Your task to perform on an android device: change keyboard looks Image 0: 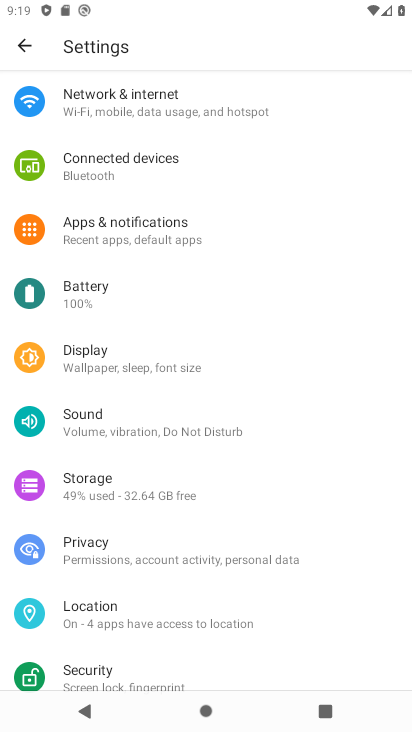
Step 0: drag from (125, 640) to (120, 48)
Your task to perform on an android device: change keyboard looks Image 1: 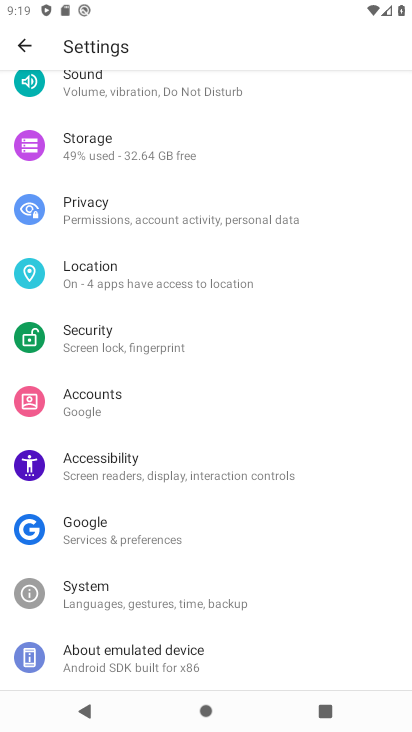
Step 1: click (91, 593)
Your task to perform on an android device: change keyboard looks Image 2: 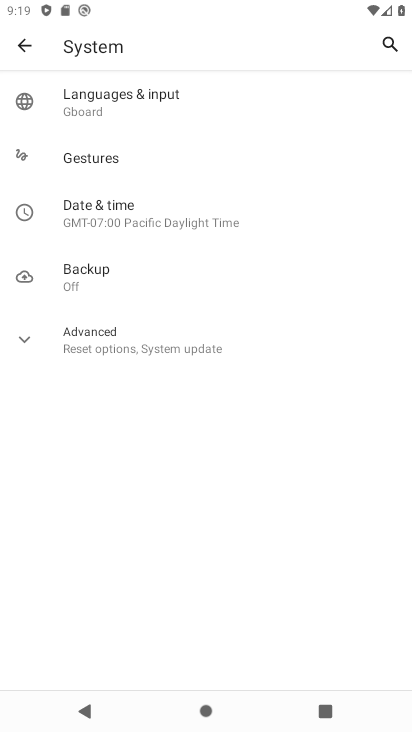
Step 2: click (131, 106)
Your task to perform on an android device: change keyboard looks Image 3: 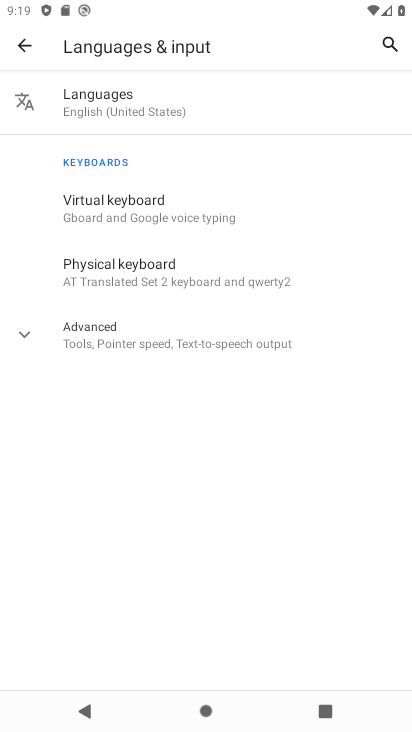
Step 3: click (116, 216)
Your task to perform on an android device: change keyboard looks Image 4: 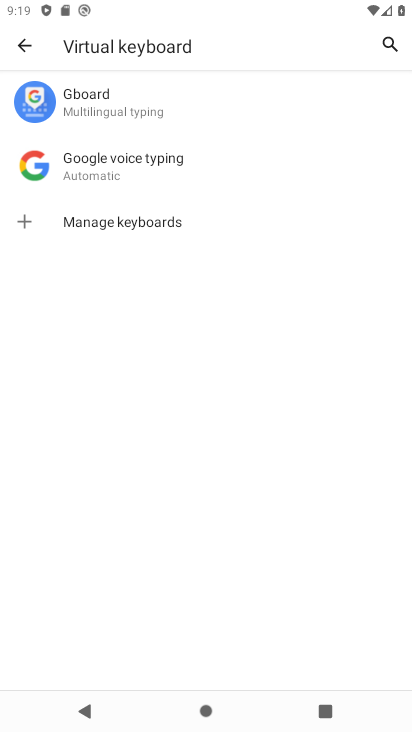
Step 4: click (96, 109)
Your task to perform on an android device: change keyboard looks Image 5: 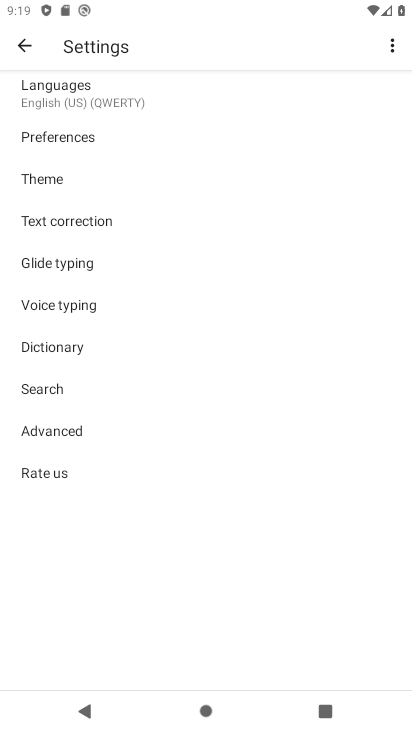
Step 5: click (42, 180)
Your task to perform on an android device: change keyboard looks Image 6: 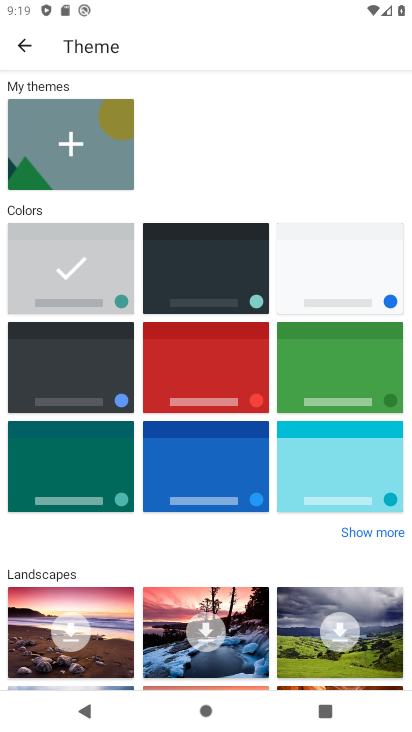
Step 6: click (209, 484)
Your task to perform on an android device: change keyboard looks Image 7: 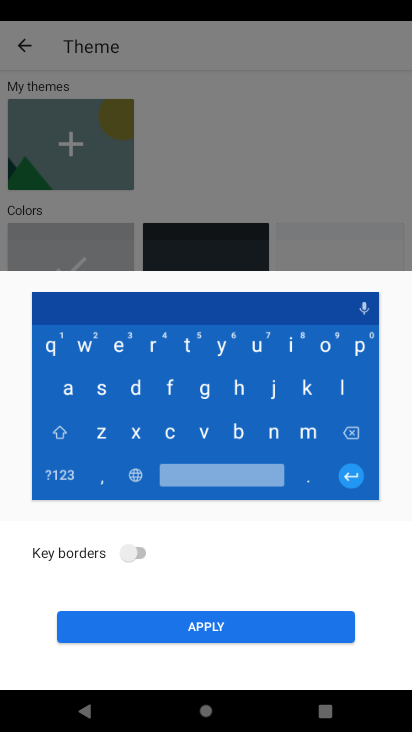
Step 7: click (164, 625)
Your task to perform on an android device: change keyboard looks Image 8: 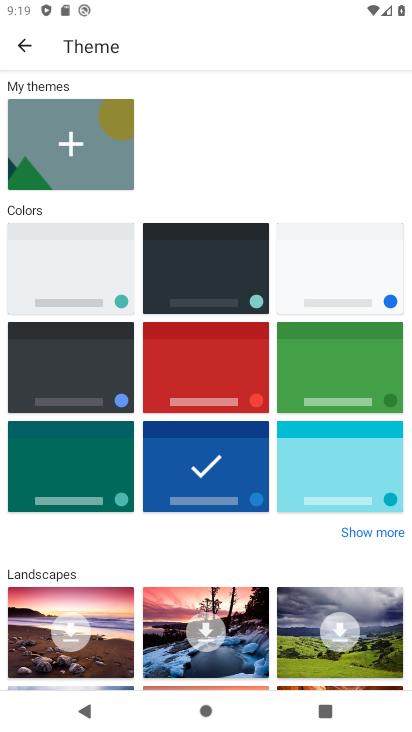
Step 8: task complete